Your task to perform on an android device: toggle airplane mode Image 0: 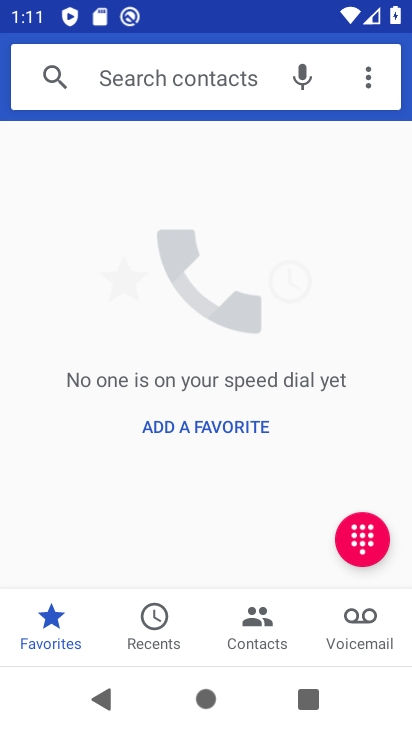
Step 0: press back button
Your task to perform on an android device: toggle airplane mode Image 1: 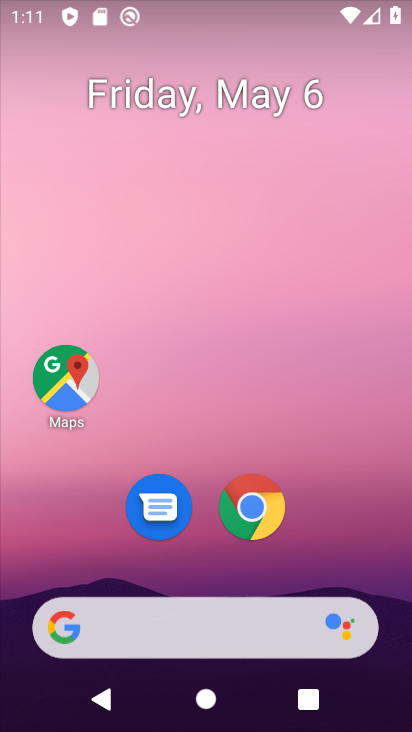
Step 1: drag from (135, 605) to (257, 0)
Your task to perform on an android device: toggle airplane mode Image 2: 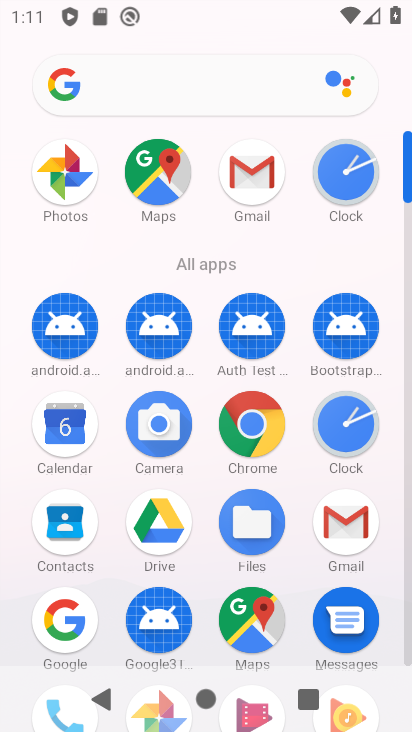
Step 2: drag from (176, 660) to (238, 365)
Your task to perform on an android device: toggle airplane mode Image 3: 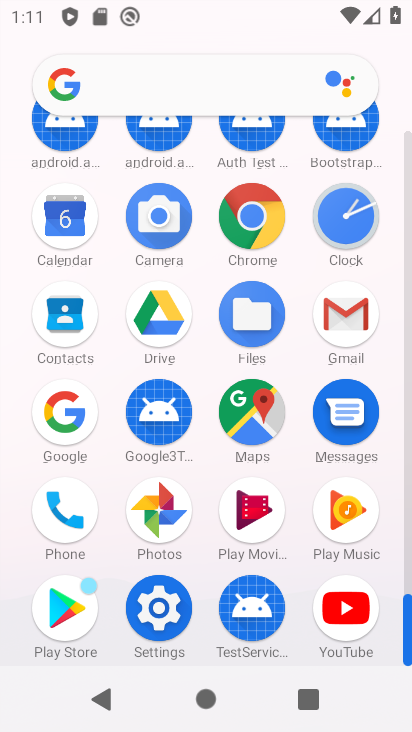
Step 3: click (148, 623)
Your task to perform on an android device: toggle airplane mode Image 4: 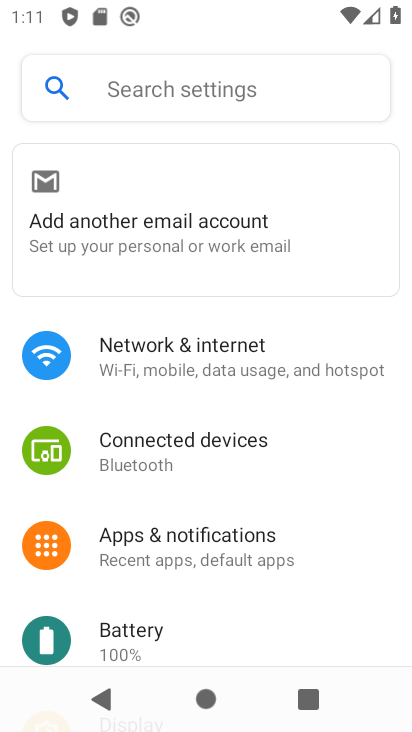
Step 4: click (213, 370)
Your task to perform on an android device: toggle airplane mode Image 5: 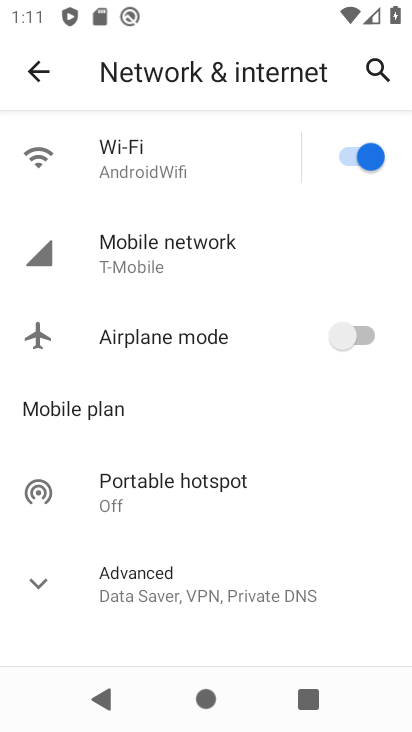
Step 5: click (362, 337)
Your task to perform on an android device: toggle airplane mode Image 6: 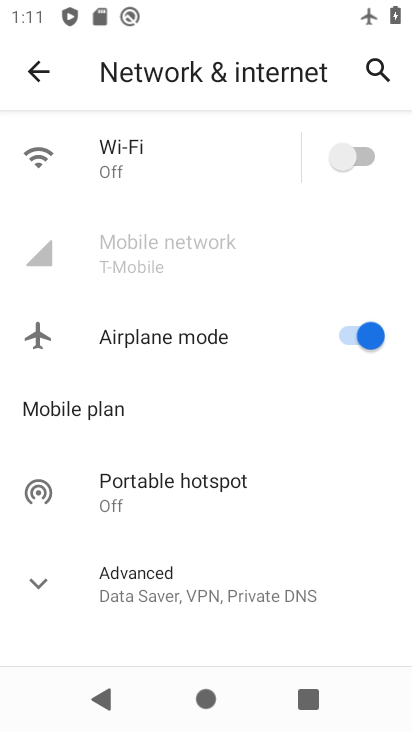
Step 6: task complete